Your task to perform on an android device: Turn off the flashlight Image 0: 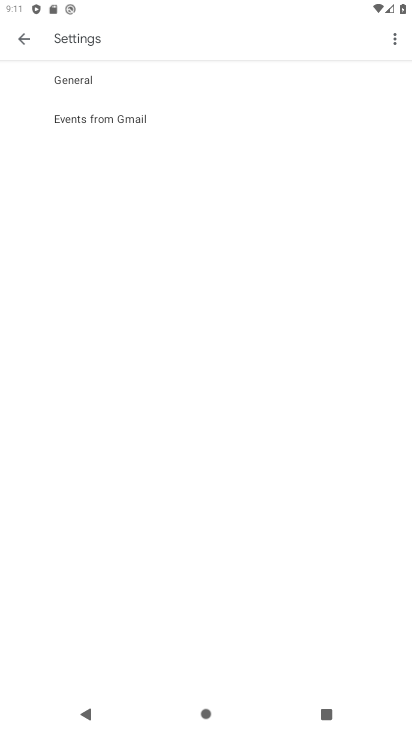
Step 0: press home button
Your task to perform on an android device: Turn off the flashlight Image 1: 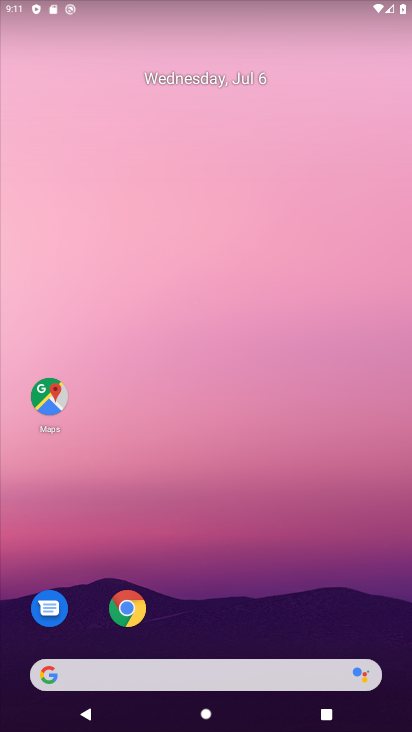
Step 1: task complete